Your task to perform on an android device: set an alarm Image 0: 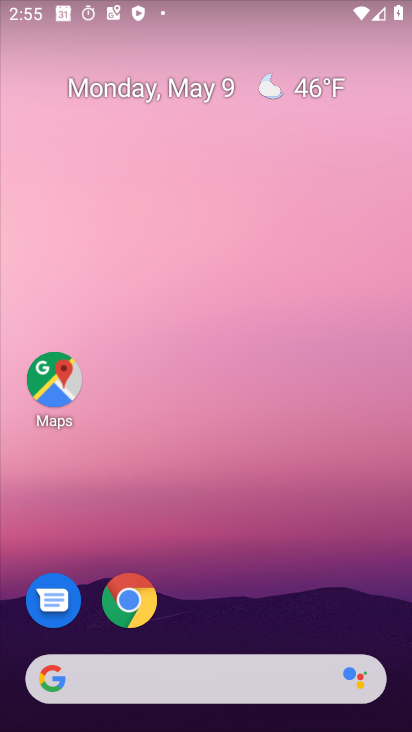
Step 0: drag from (184, 649) to (276, 99)
Your task to perform on an android device: set an alarm Image 1: 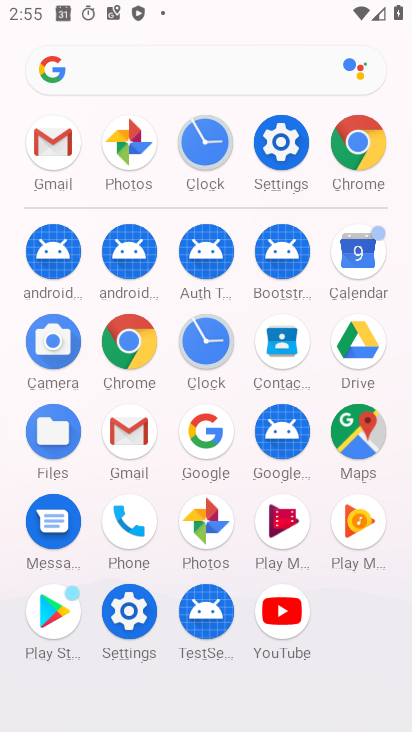
Step 1: click (212, 343)
Your task to perform on an android device: set an alarm Image 2: 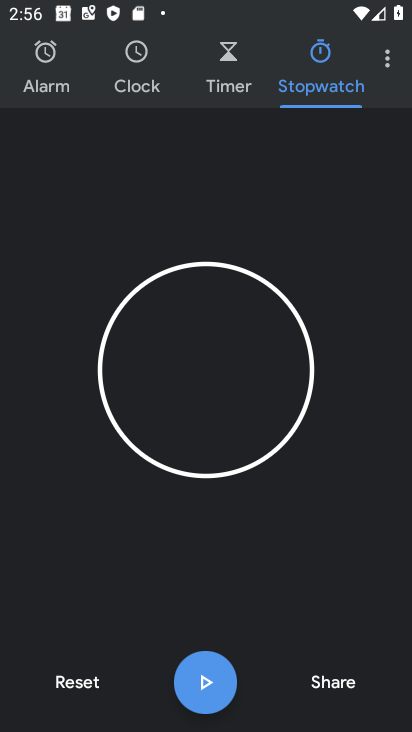
Step 2: click (52, 55)
Your task to perform on an android device: set an alarm Image 3: 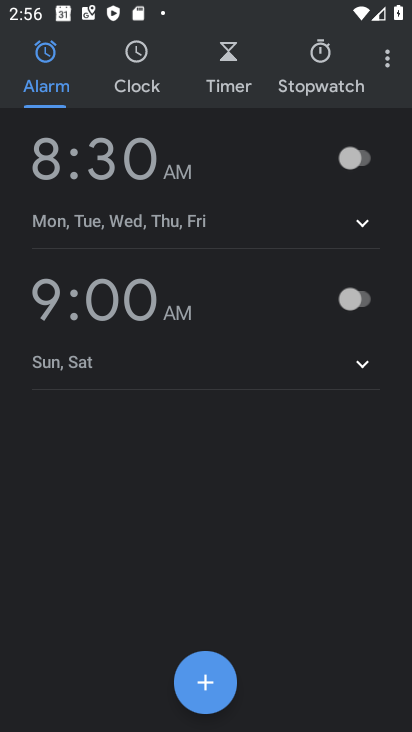
Step 3: click (355, 163)
Your task to perform on an android device: set an alarm Image 4: 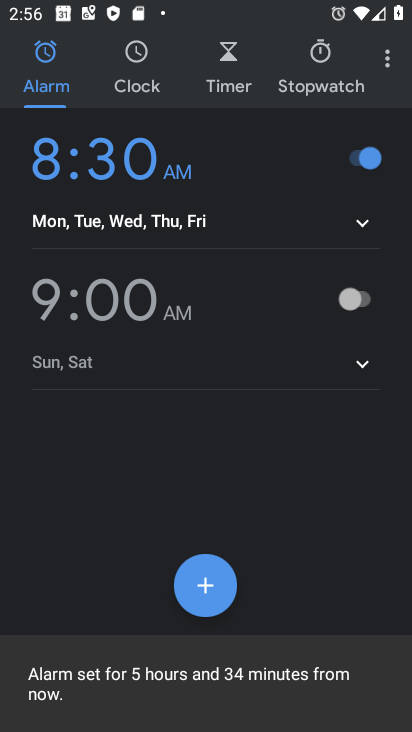
Step 4: task complete